Your task to perform on an android device: Open notification settings Image 0: 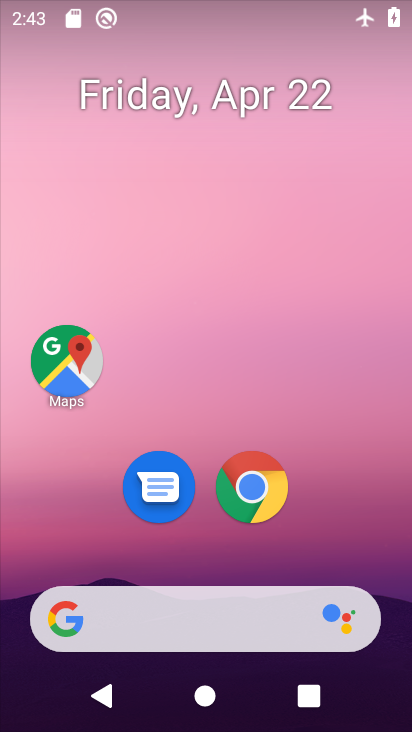
Step 0: drag from (273, 564) to (272, 256)
Your task to perform on an android device: Open notification settings Image 1: 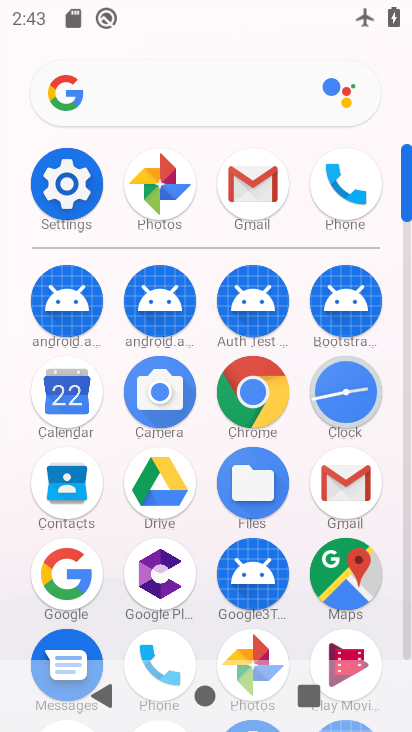
Step 1: click (86, 195)
Your task to perform on an android device: Open notification settings Image 2: 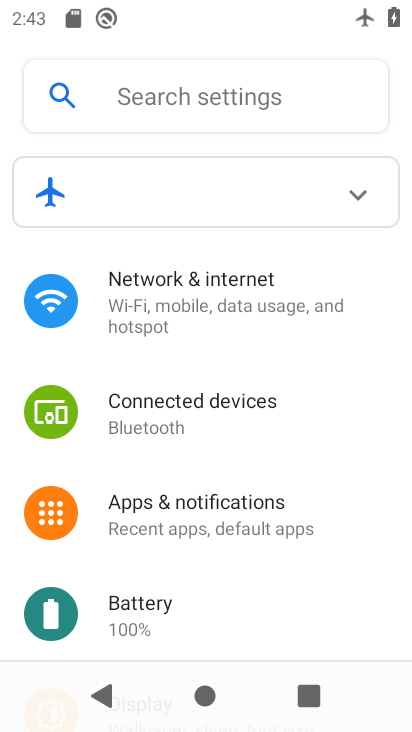
Step 2: click (216, 522)
Your task to perform on an android device: Open notification settings Image 3: 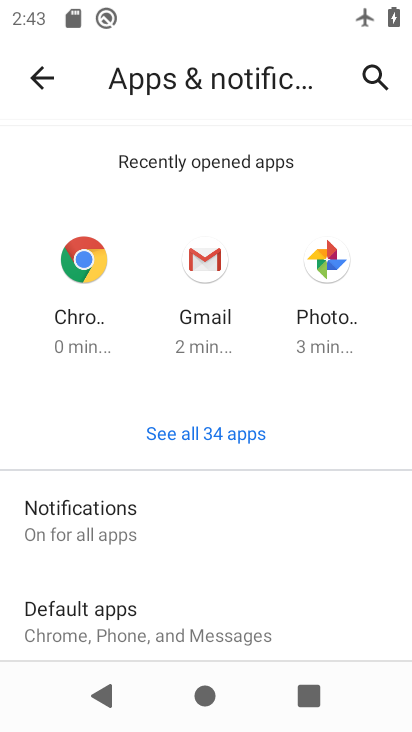
Step 3: click (157, 523)
Your task to perform on an android device: Open notification settings Image 4: 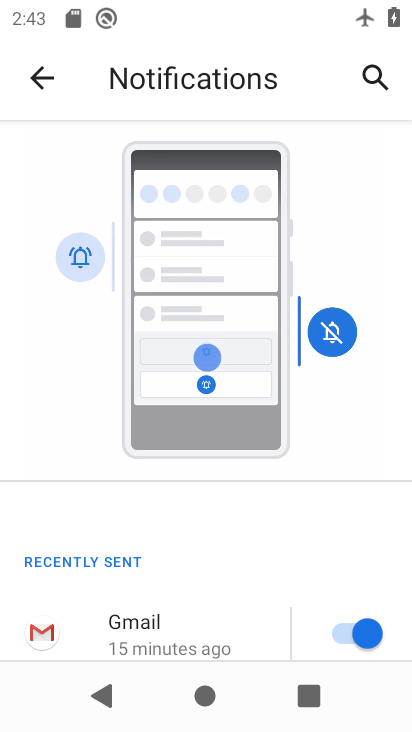
Step 4: task complete